Your task to perform on an android device: Open the map Image 0: 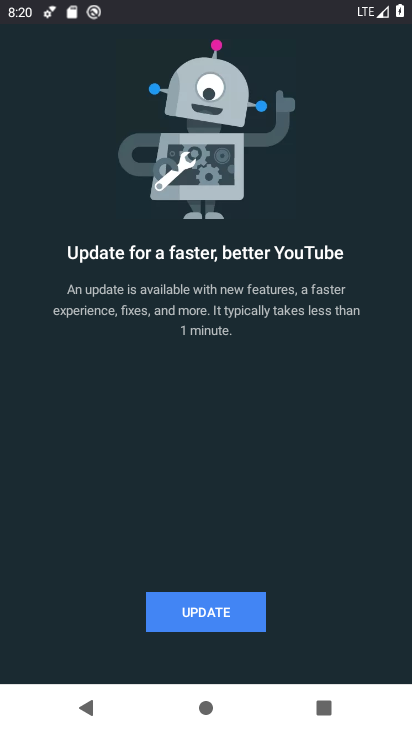
Step 0: press back button
Your task to perform on an android device: Open the map Image 1: 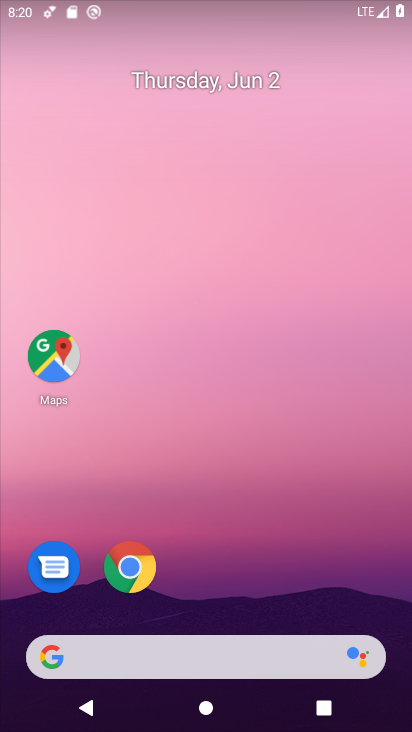
Step 1: drag from (196, 627) to (299, 129)
Your task to perform on an android device: Open the map Image 2: 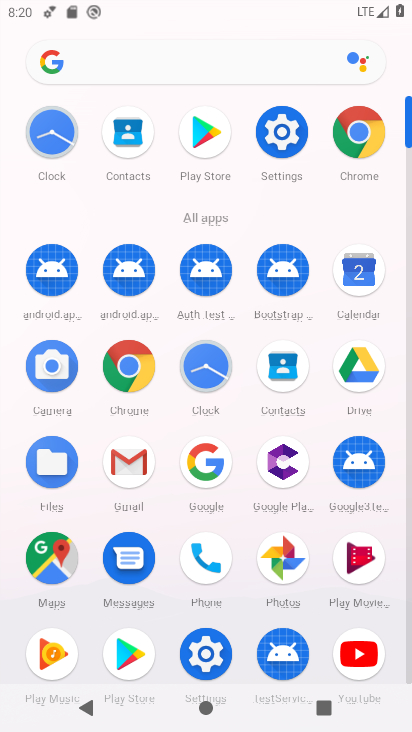
Step 2: click (69, 558)
Your task to perform on an android device: Open the map Image 3: 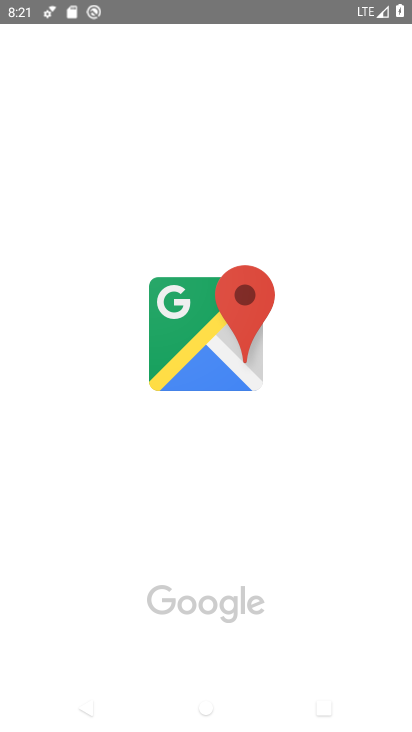
Step 3: click (293, 442)
Your task to perform on an android device: Open the map Image 4: 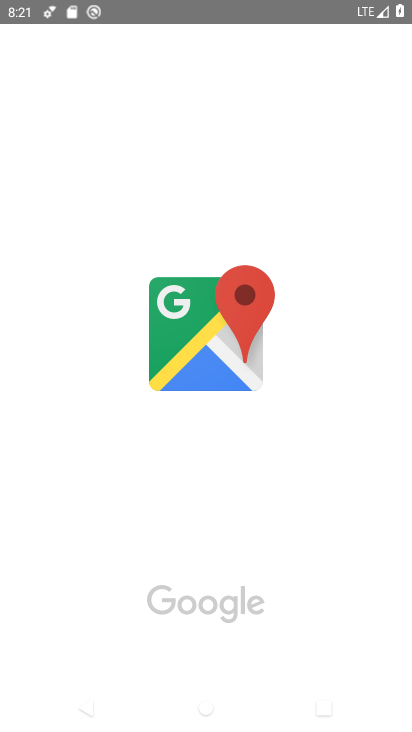
Step 4: click (201, 464)
Your task to perform on an android device: Open the map Image 5: 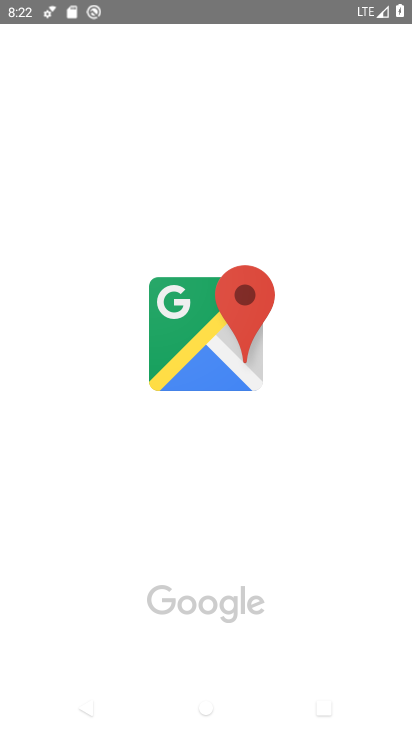
Step 5: task complete